Your task to perform on an android device: turn on javascript in the chrome app Image 0: 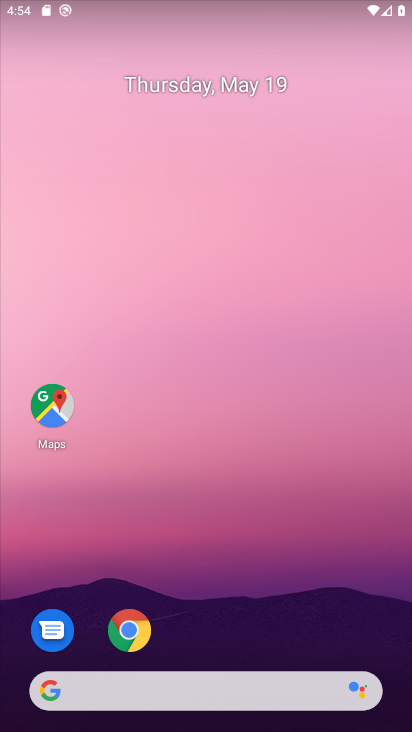
Step 0: drag from (277, 588) to (193, 0)
Your task to perform on an android device: turn on javascript in the chrome app Image 1: 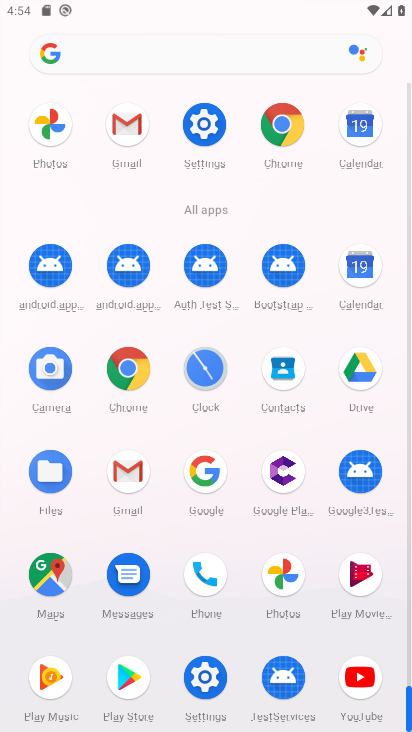
Step 1: drag from (21, 569) to (21, 242)
Your task to perform on an android device: turn on javascript in the chrome app Image 2: 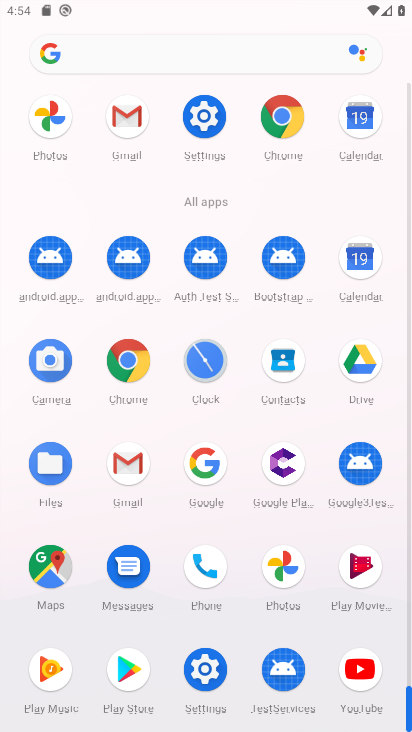
Step 2: click (129, 353)
Your task to perform on an android device: turn on javascript in the chrome app Image 3: 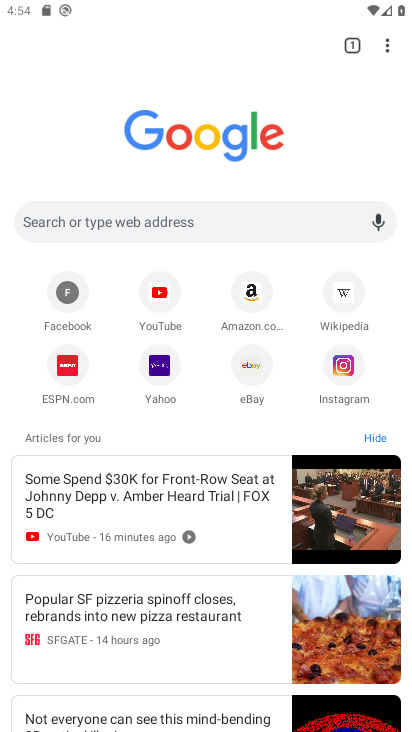
Step 3: drag from (383, 43) to (226, 378)
Your task to perform on an android device: turn on javascript in the chrome app Image 4: 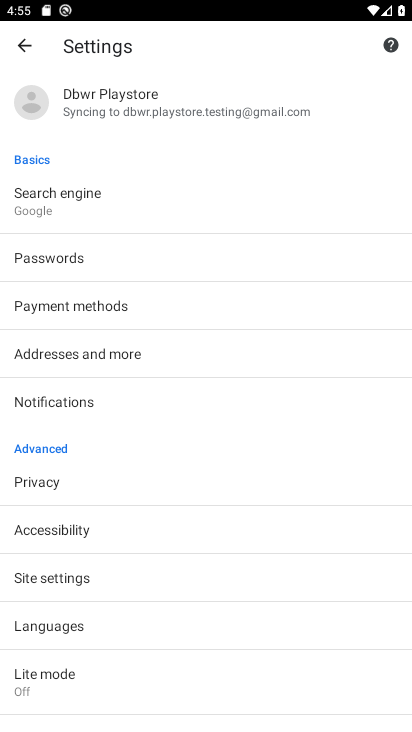
Step 4: drag from (204, 635) to (236, 157)
Your task to perform on an android device: turn on javascript in the chrome app Image 5: 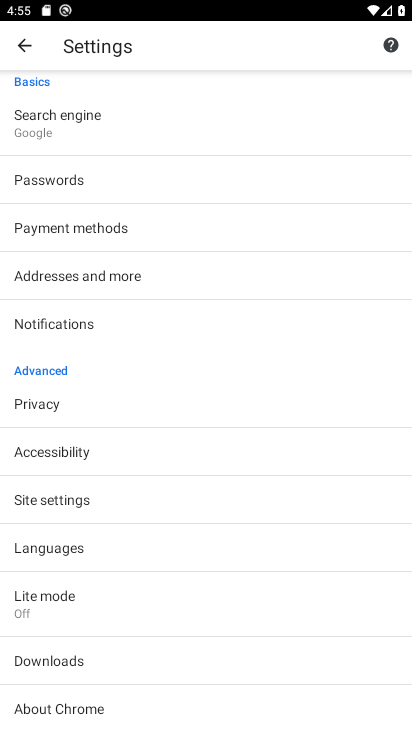
Step 5: click (79, 494)
Your task to perform on an android device: turn on javascript in the chrome app Image 6: 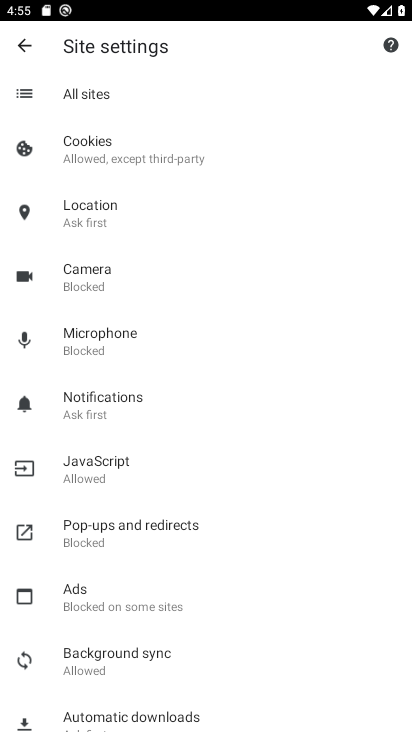
Step 6: click (93, 450)
Your task to perform on an android device: turn on javascript in the chrome app Image 7: 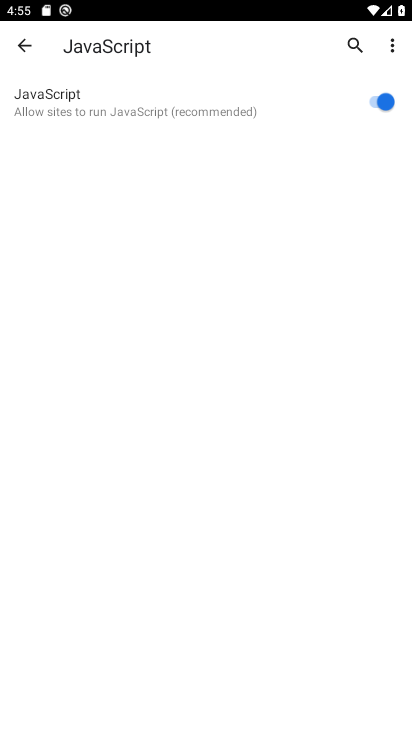
Step 7: task complete